Your task to perform on an android device: Search for Italian restaurants on Maps Image 0: 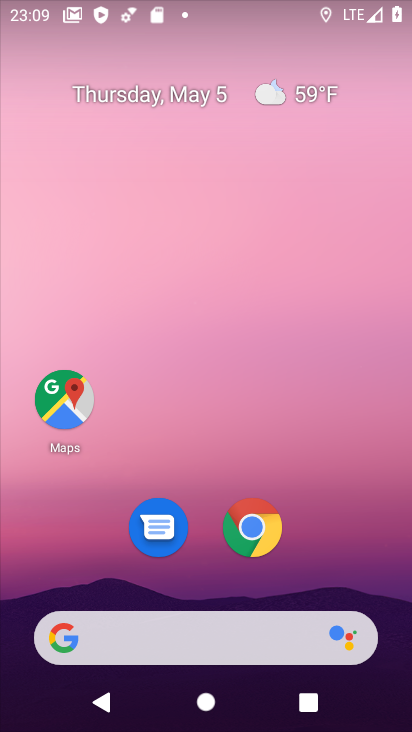
Step 0: click (74, 418)
Your task to perform on an android device: Search for Italian restaurants on Maps Image 1: 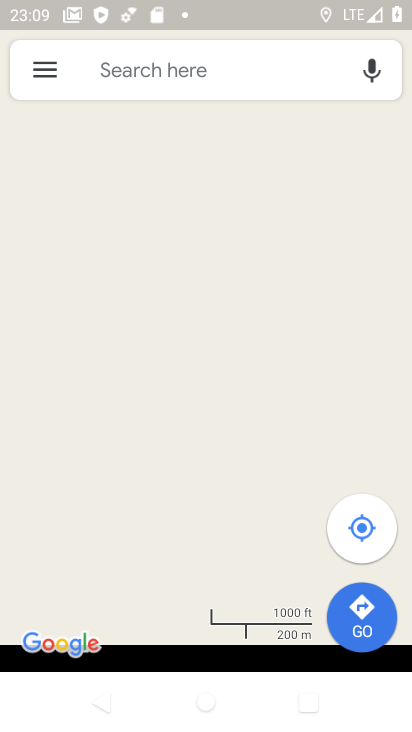
Step 1: click (215, 83)
Your task to perform on an android device: Search for Italian restaurants on Maps Image 2: 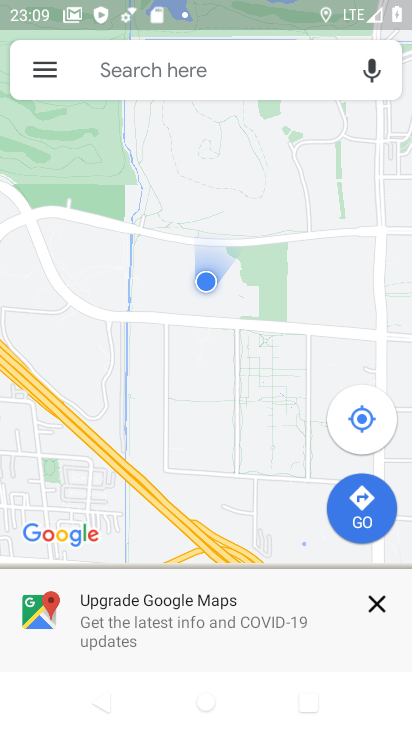
Step 2: click (203, 78)
Your task to perform on an android device: Search for Italian restaurants on Maps Image 3: 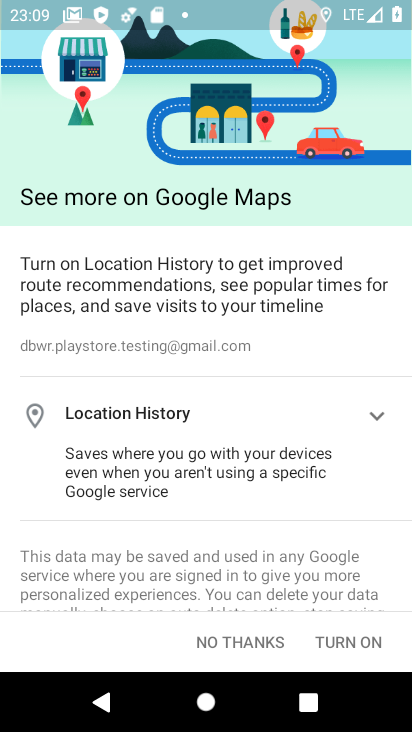
Step 3: click (193, 639)
Your task to perform on an android device: Search for Italian restaurants on Maps Image 4: 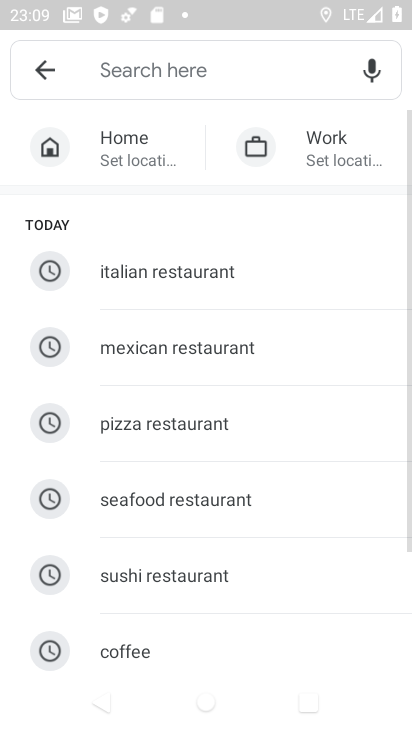
Step 4: click (258, 56)
Your task to perform on an android device: Search for Italian restaurants on Maps Image 5: 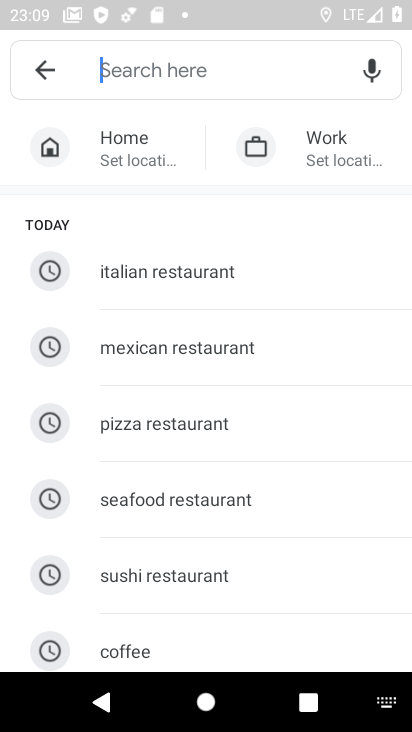
Step 5: type "italian restaurants"
Your task to perform on an android device: Search for Italian restaurants on Maps Image 6: 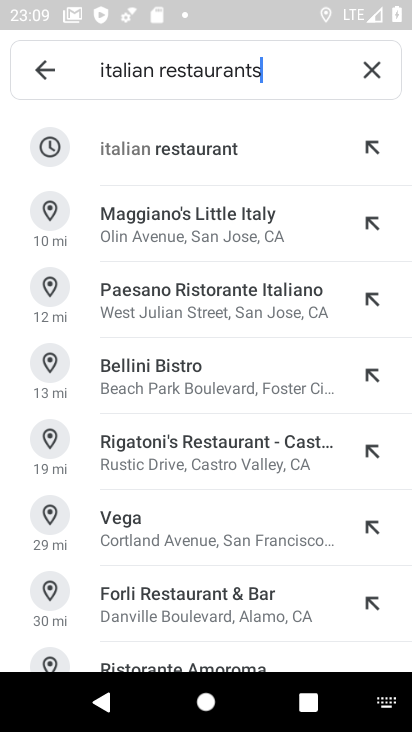
Step 6: click (230, 155)
Your task to perform on an android device: Search for Italian restaurants on Maps Image 7: 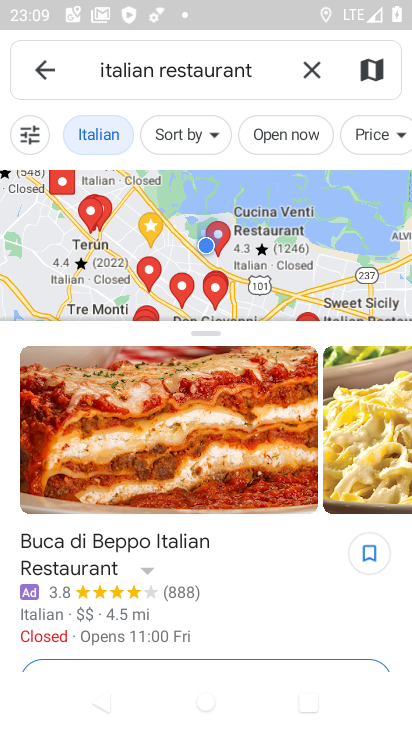
Step 7: task complete